Your task to perform on an android device: Open CNN.com Image 0: 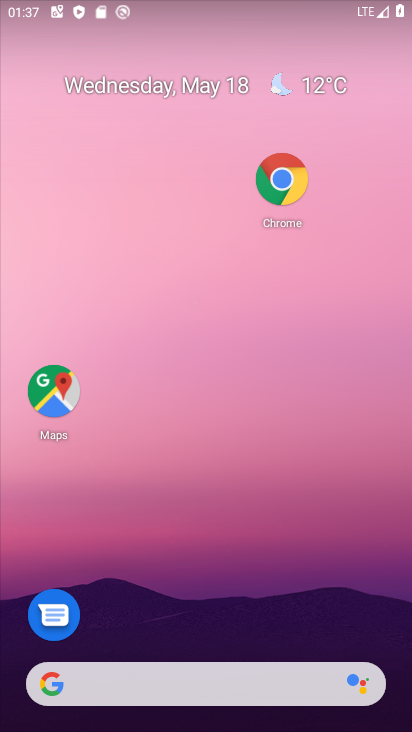
Step 0: press home button
Your task to perform on an android device: Open CNN.com Image 1: 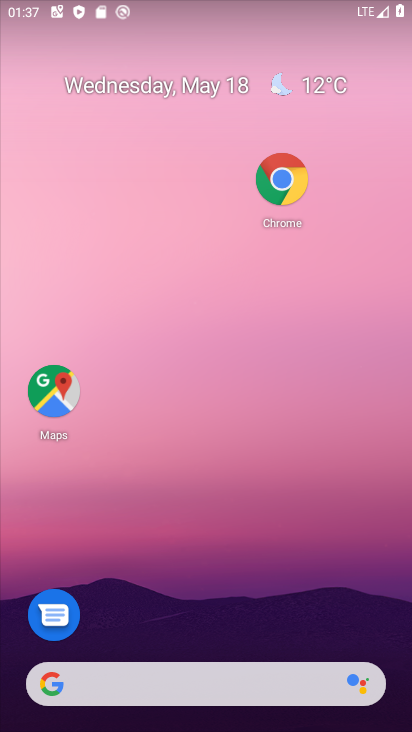
Step 1: click (285, 191)
Your task to perform on an android device: Open CNN.com Image 2: 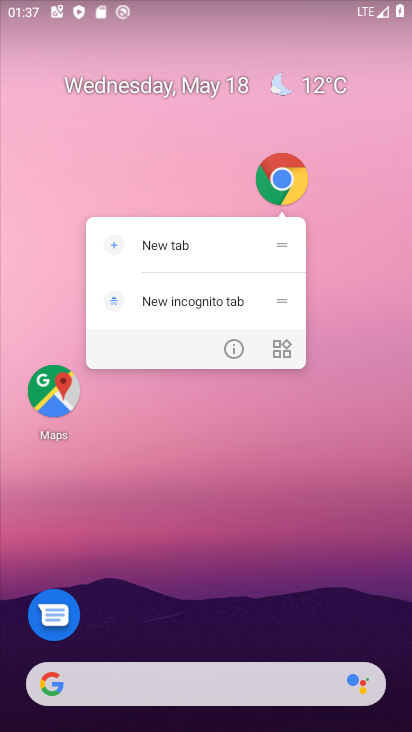
Step 2: click (279, 178)
Your task to perform on an android device: Open CNN.com Image 3: 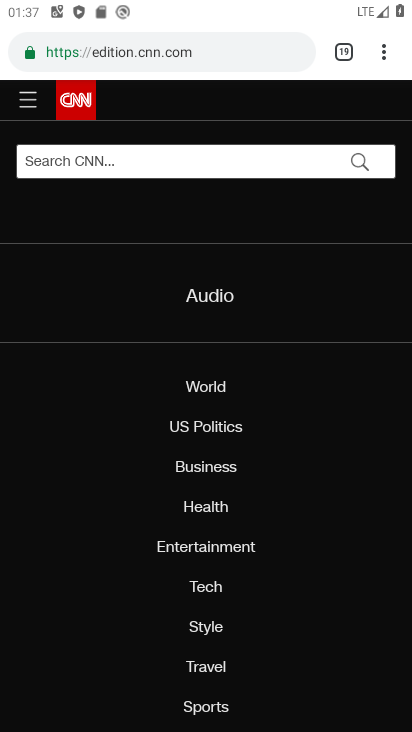
Step 3: task complete